Your task to perform on an android device: What is the recent news? Image 0: 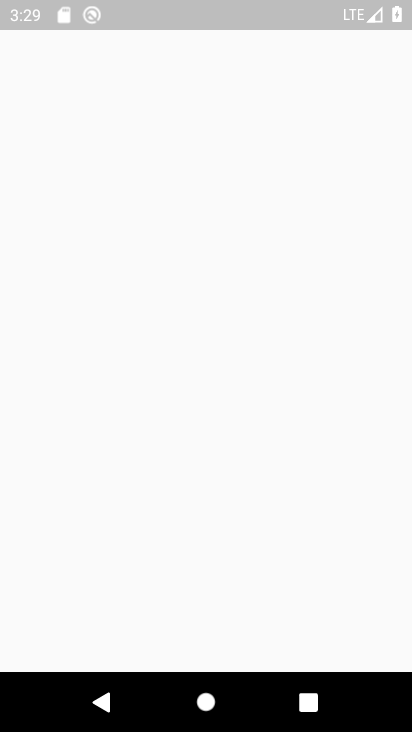
Step 0: drag from (385, 591) to (410, 359)
Your task to perform on an android device: What is the recent news? Image 1: 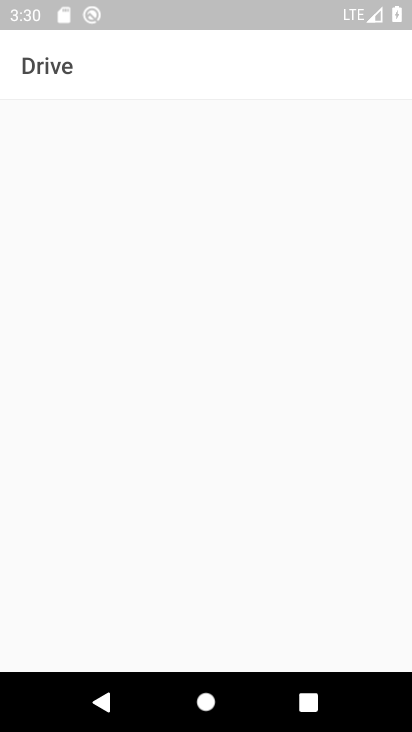
Step 1: task complete